Your task to perform on an android device: Show me recent news Image 0: 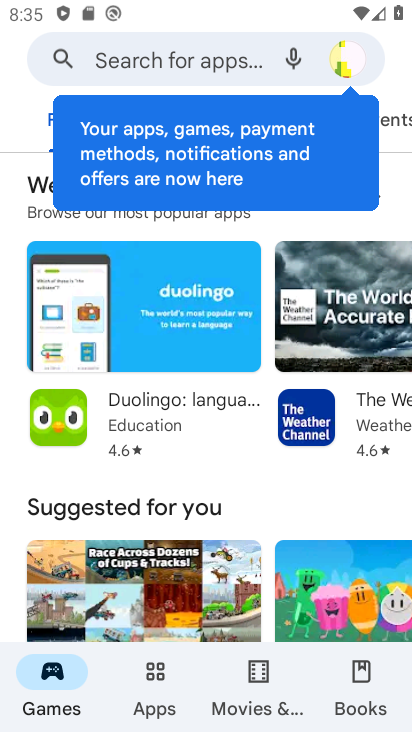
Step 0: press home button
Your task to perform on an android device: Show me recent news Image 1: 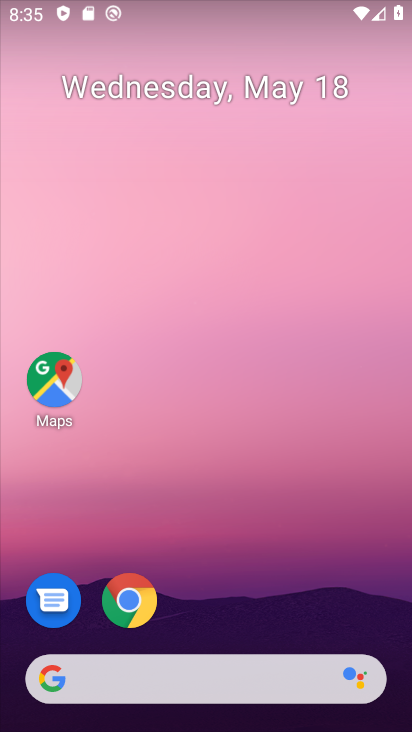
Step 1: click (160, 685)
Your task to perform on an android device: Show me recent news Image 2: 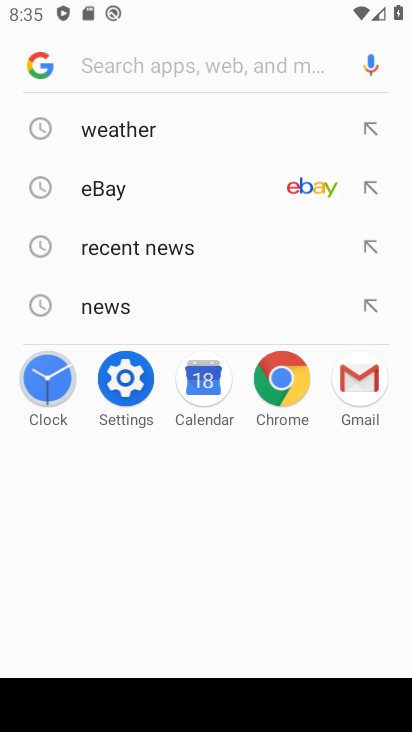
Step 2: click (116, 299)
Your task to perform on an android device: Show me recent news Image 3: 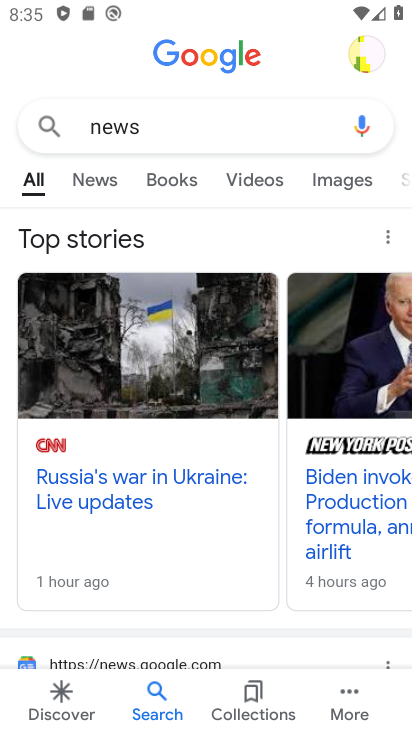
Step 3: task complete